Your task to perform on an android device: toggle data saver in the chrome app Image 0: 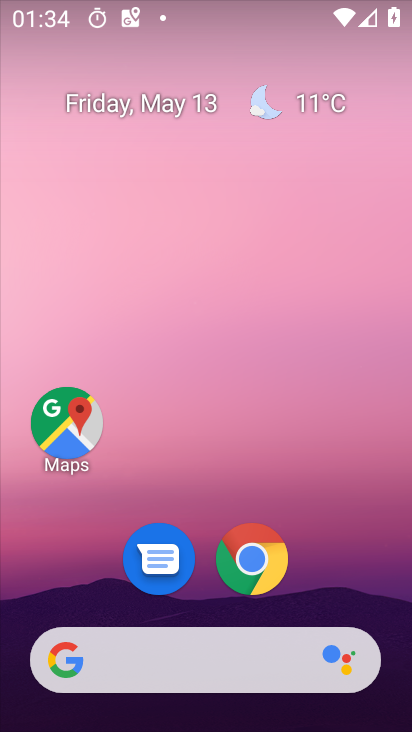
Step 0: click (258, 567)
Your task to perform on an android device: toggle data saver in the chrome app Image 1: 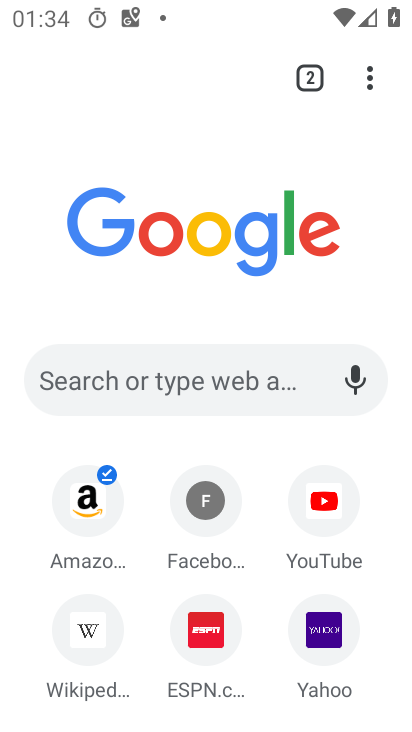
Step 1: click (364, 74)
Your task to perform on an android device: toggle data saver in the chrome app Image 2: 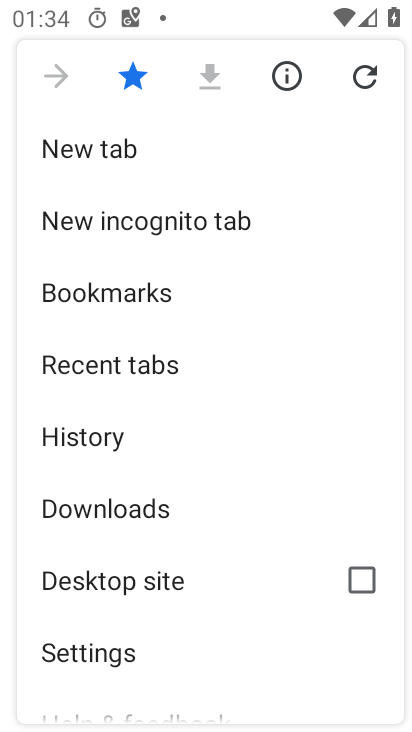
Step 2: click (141, 654)
Your task to perform on an android device: toggle data saver in the chrome app Image 3: 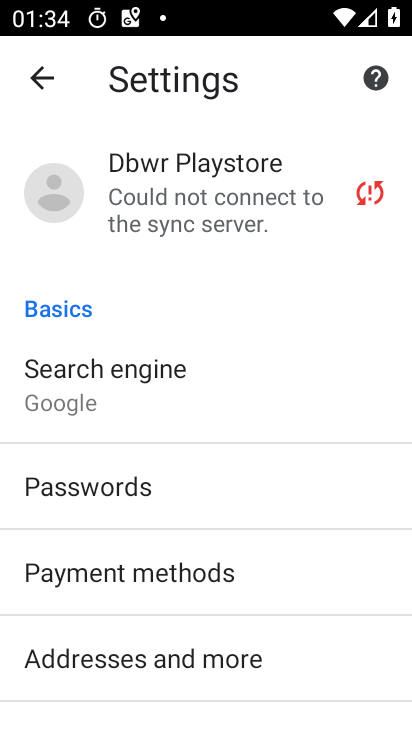
Step 3: drag from (242, 589) to (274, 28)
Your task to perform on an android device: toggle data saver in the chrome app Image 4: 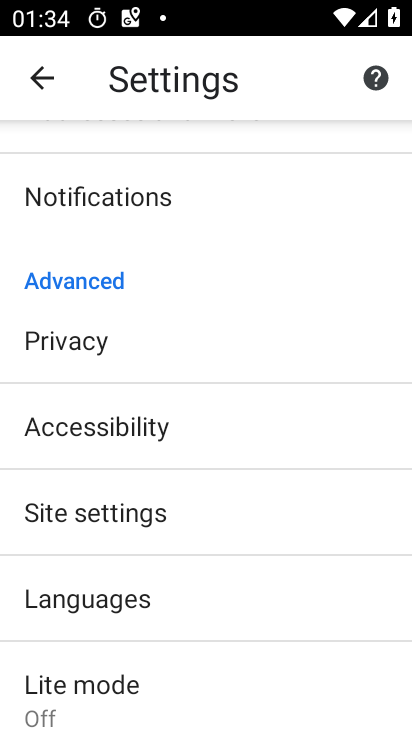
Step 4: click (97, 707)
Your task to perform on an android device: toggle data saver in the chrome app Image 5: 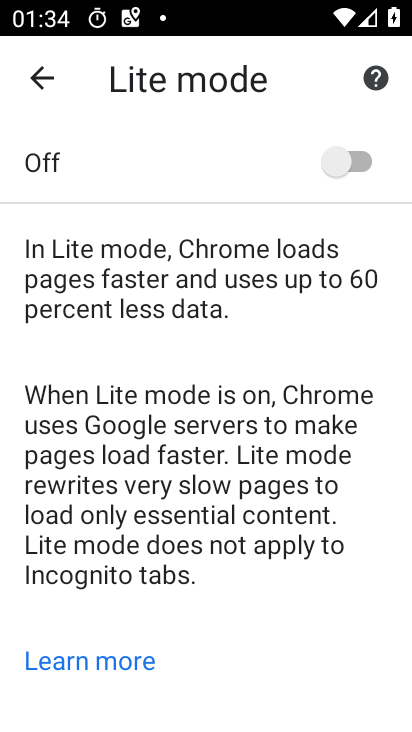
Step 5: click (352, 161)
Your task to perform on an android device: toggle data saver in the chrome app Image 6: 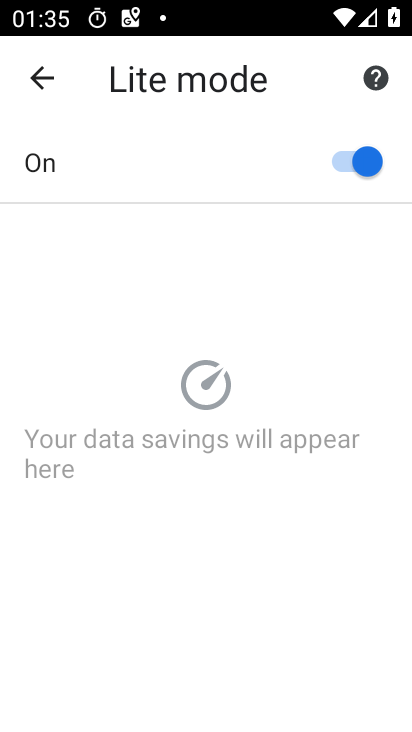
Step 6: task complete